Your task to perform on an android device: turn off sleep mode Image 0: 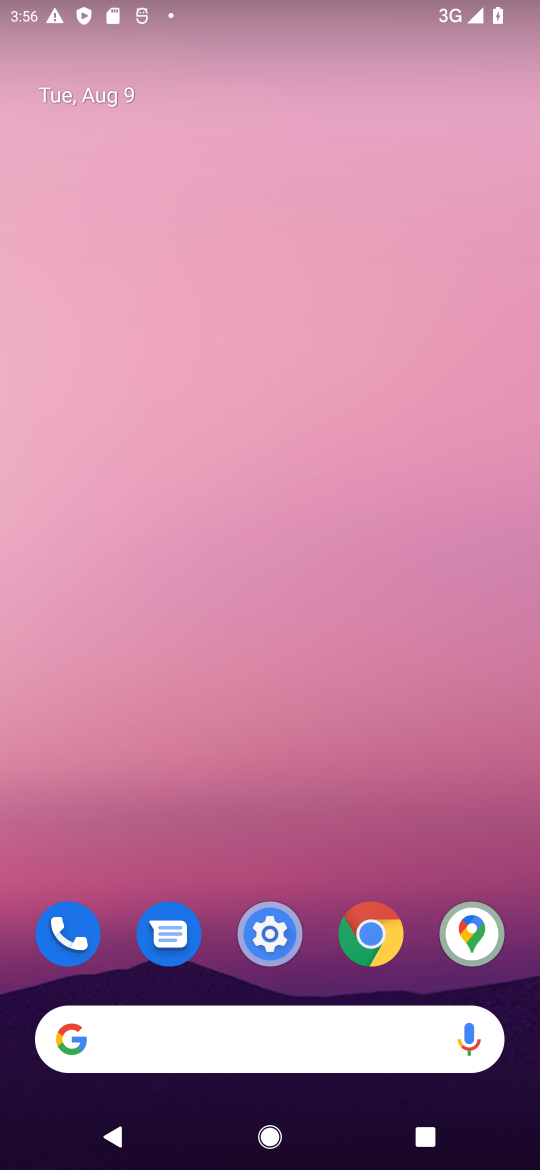
Step 0: click (267, 959)
Your task to perform on an android device: turn off sleep mode Image 1: 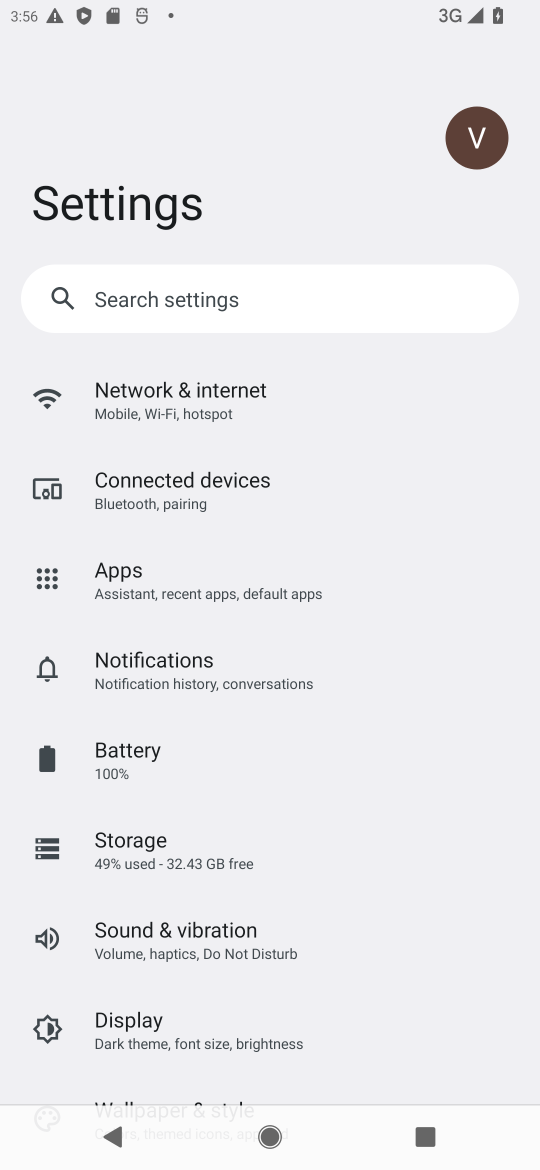
Step 1: click (209, 574)
Your task to perform on an android device: turn off sleep mode Image 2: 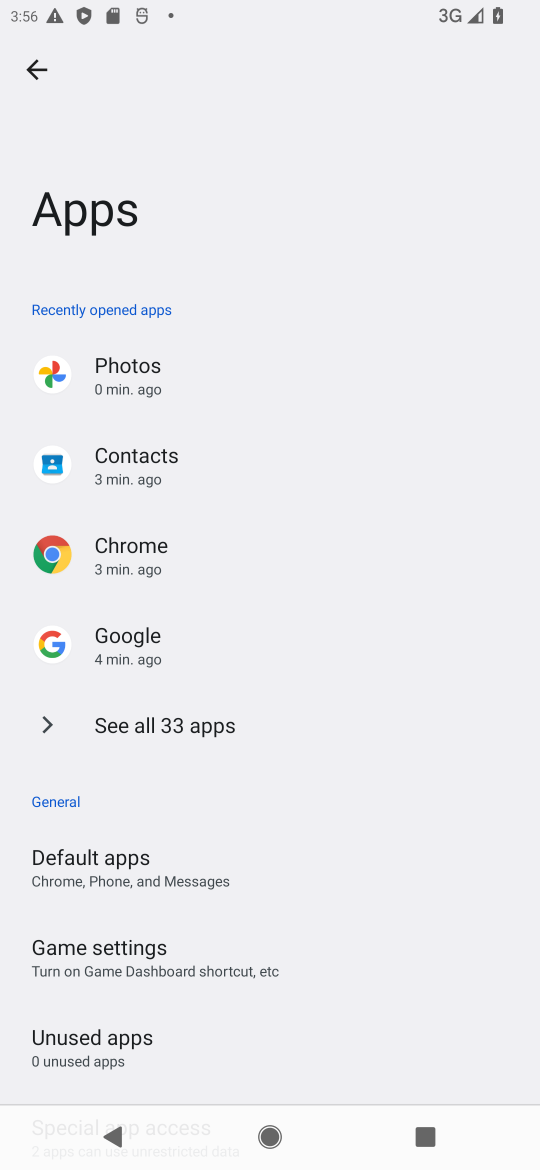
Step 2: task complete